Your task to perform on an android device: delete a single message in the gmail app Image 0: 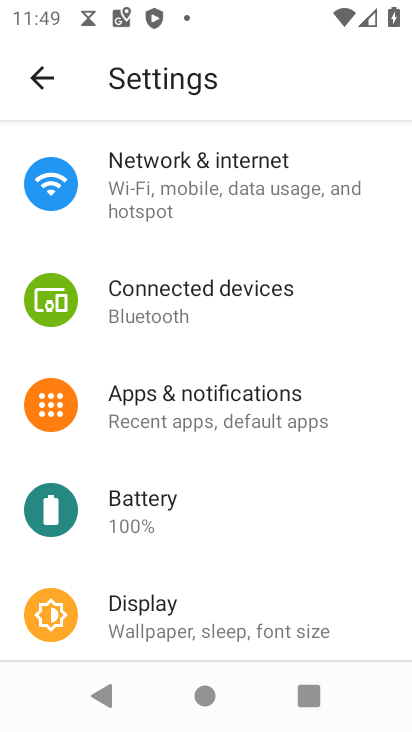
Step 0: press home button
Your task to perform on an android device: delete a single message in the gmail app Image 1: 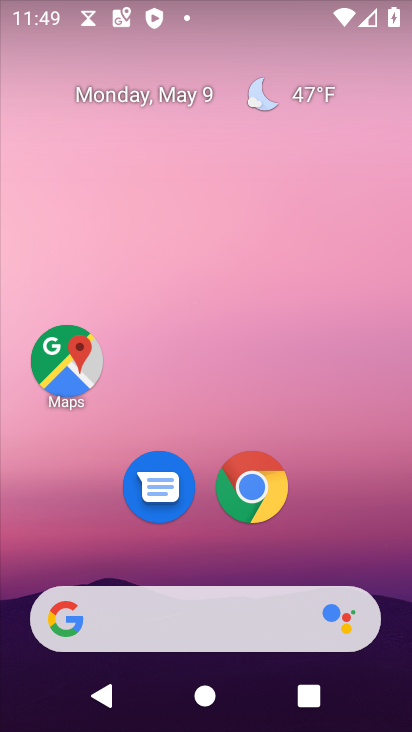
Step 1: drag from (226, 556) to (227, 39)
Your task to perform on an android device: delete a single message in the gmail app Image 2: 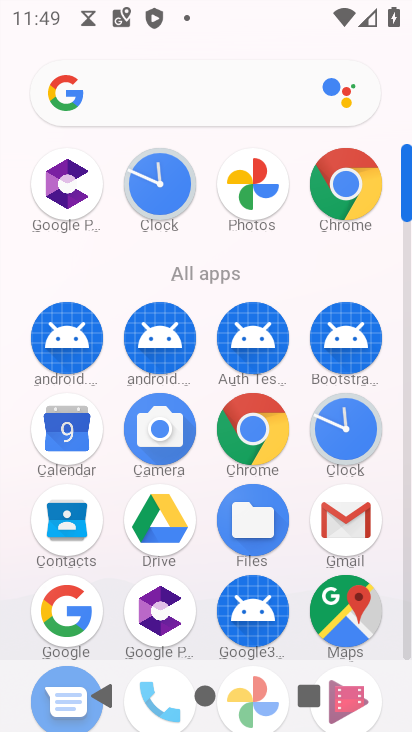
Step 2: click (342, 508)
Your task to perform on an android device: delete a single message in the gmail app Image 3: 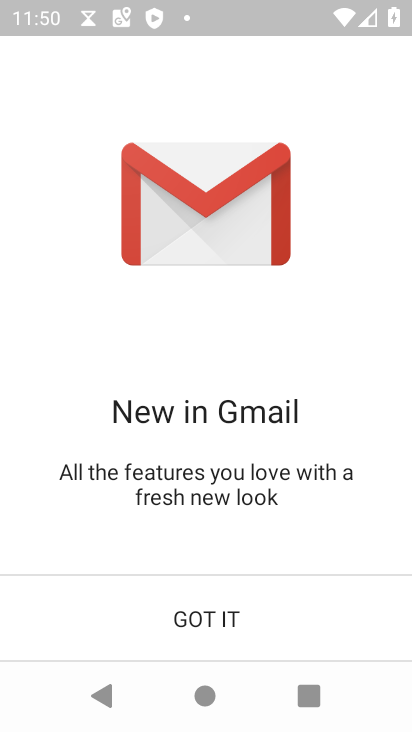
Step 3: click (209, 624)
Your task to perform on an android device: delete a single message in the gmail app Image 4: 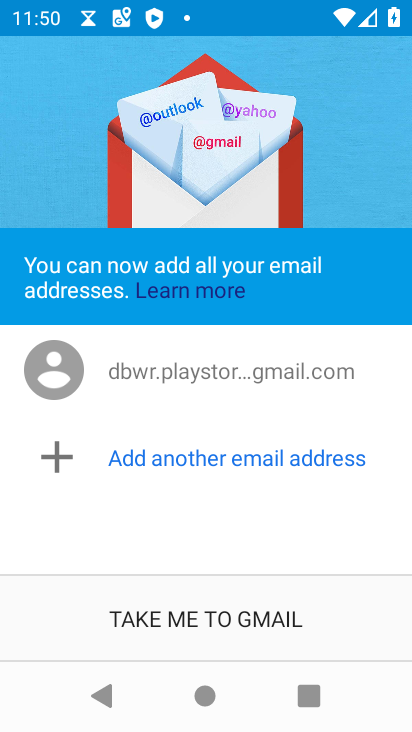
Step 4: click (201, 635)
Your task to perform on an android device: delete a single message in the gmail app Image 5: 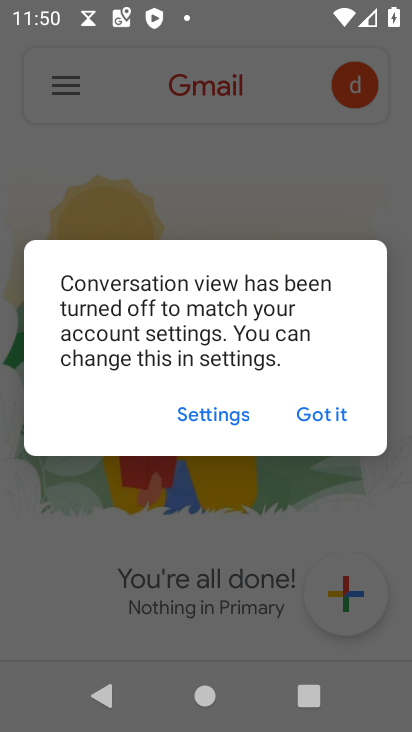
Step 5: click (319, 413)
Your task to perform on an android device: delete a single message in the gmail app Image 6: 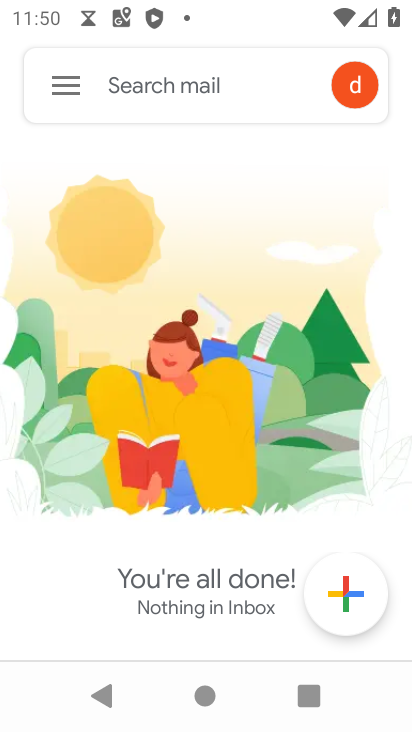
Step 6: click (68, 75)
Your task to perform on an android device: delete a single message in the gmail app Image 7: 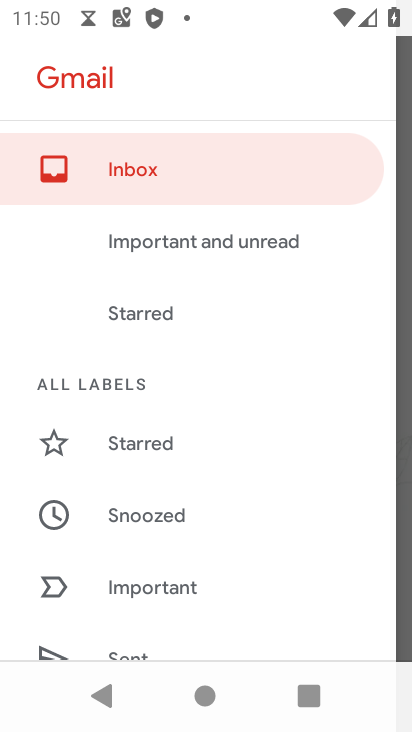
Step 7: click (168, 176)
Your task to perform on an android device: delete a single message in the gmail app Image 8: 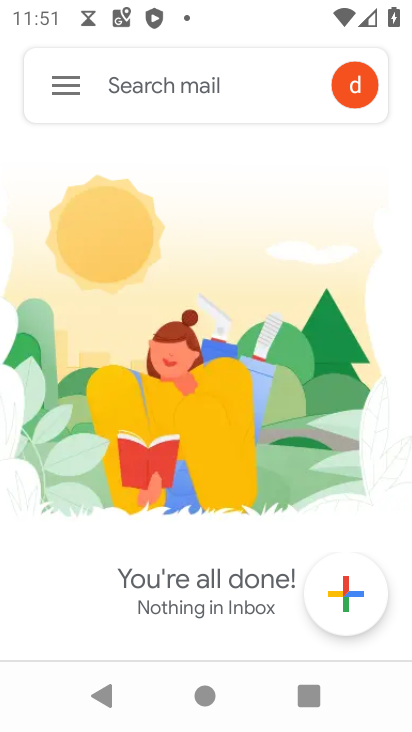
Step 8: click (63, 79)
Your task to perform on an android device: delete a single message in the gmail app Image 9: 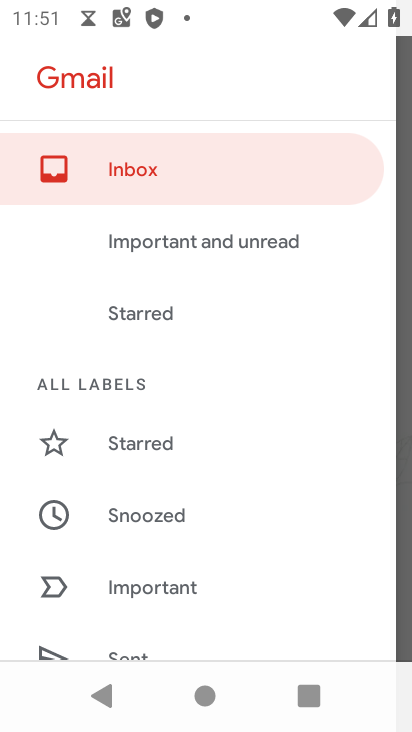
Step 9: task complete